Your task to perform on an android device: Go to battery settings Image 0: 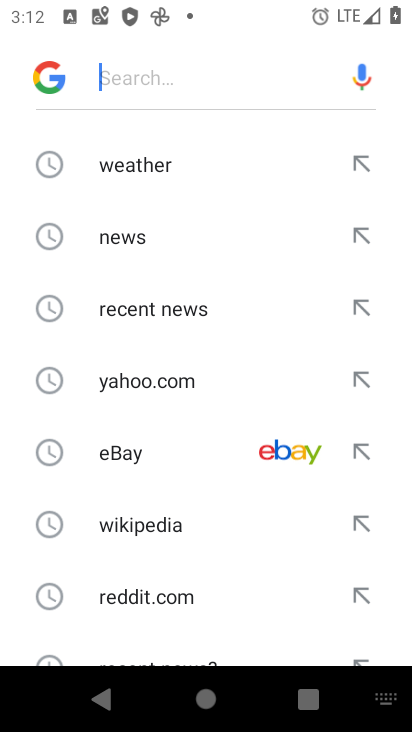
Step 0: press home button
Your task to perform on an android device: Go to battery settings Image 1: 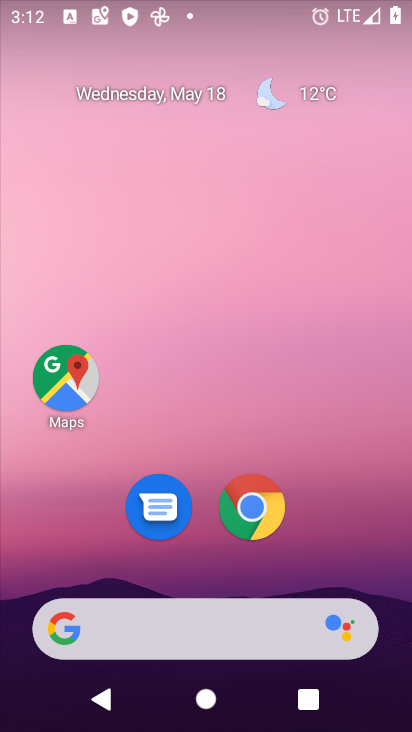
Step 1: drag from (396, 613) to (298, 68)
Your task to perform on an android device: Go to battery settings Image 2: 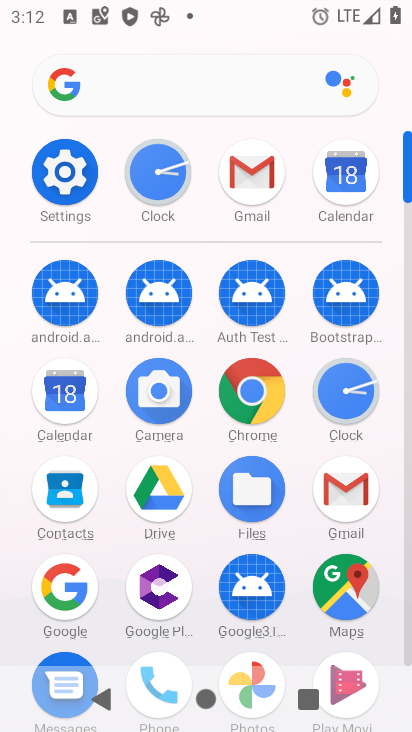
Step 2: click (409, 652)
Your task to perform on an android device: Go to battery settings Image 3: 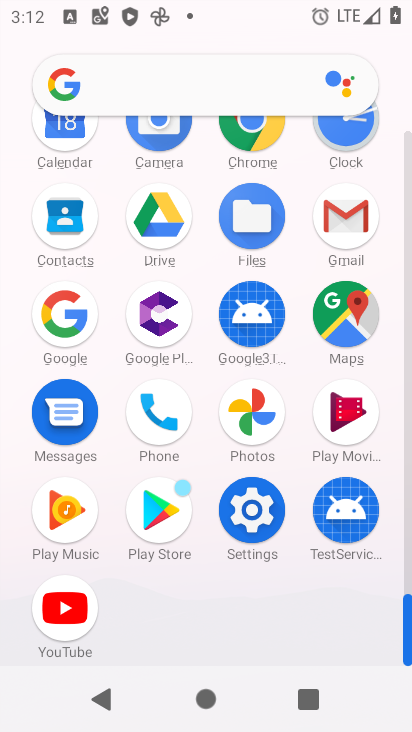
Step 3: click (252, 507)
Your task to perform on an android device: Go to battery settings Image 4: 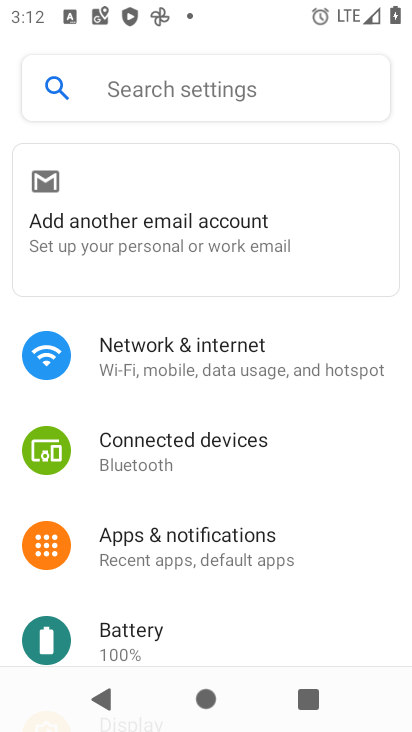
Step 4: click (148, 625)
Your task to perform on an android device: Go to battery settings Image 5: 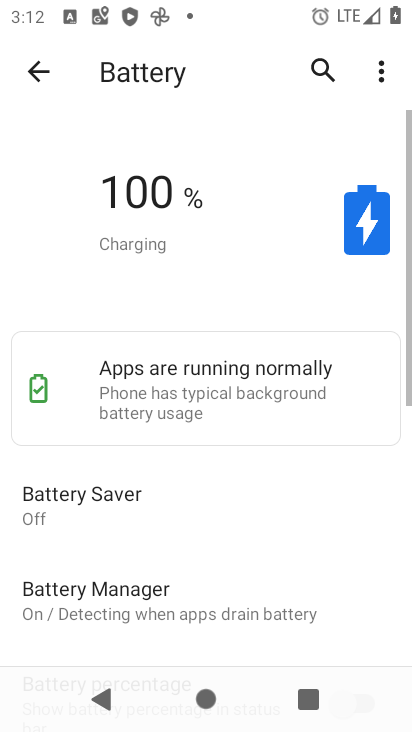
Step 5: task complete